Your task to perform on an android device: open device folders in google photos Image 0: 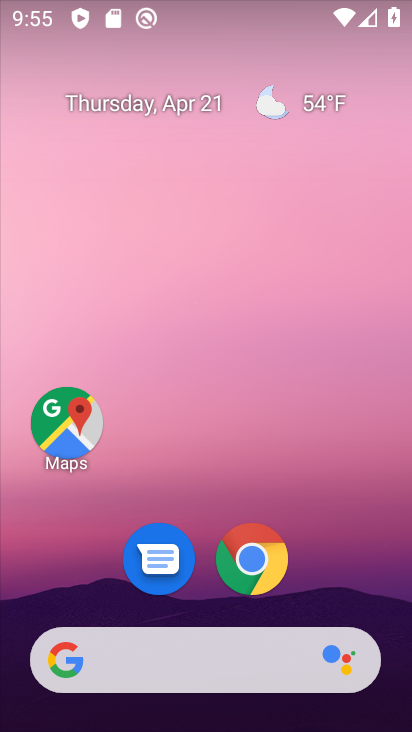
Step 0: drag from (188, 582) to (324, 12)
Your task to perform on an android device: open device folders in google photos Image 1: 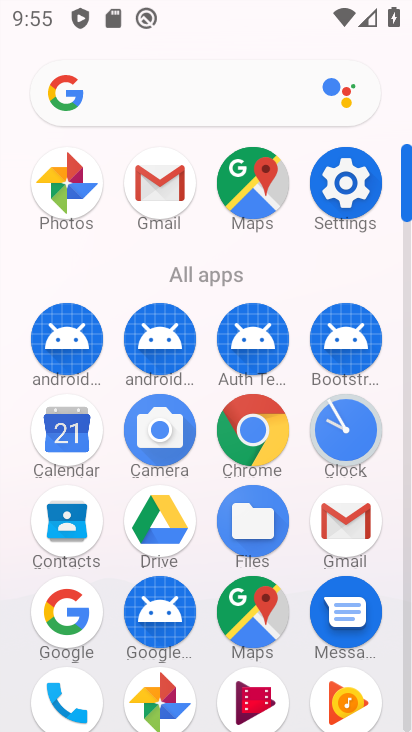
Step 1: drag from (192, 559) to (314, 94)
Your task to perform on an android device: open device folders in google photos Image 2: 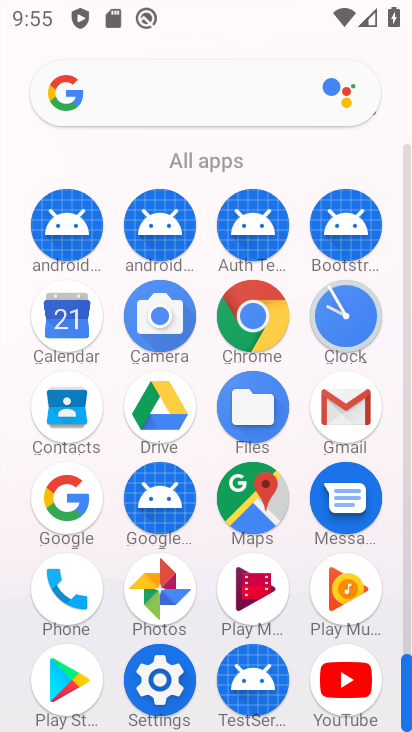
Step 2: click (159, 569)
Your task to perform on an android device: open device folders in google photos Image 3: 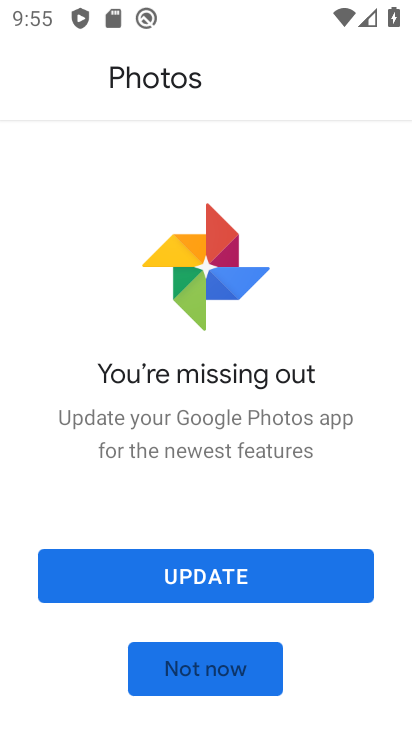
Step 3: click (195, 660)
Your task to perform on an android device: open device folders in google photos Image 4: 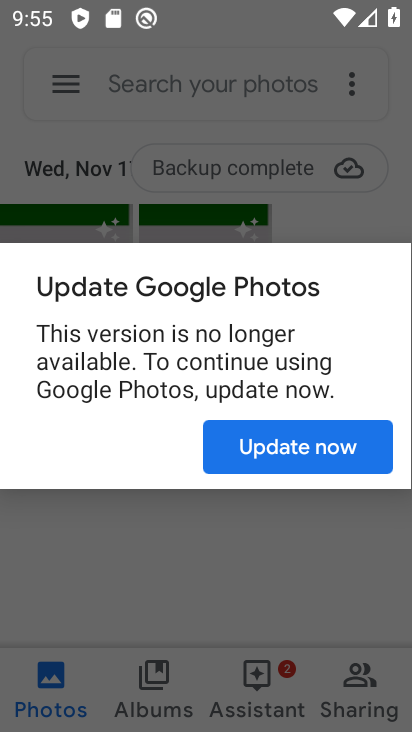
Step 4: click (198, 546)
Your task to perform on an android device: open device folders in google photos Image 5: 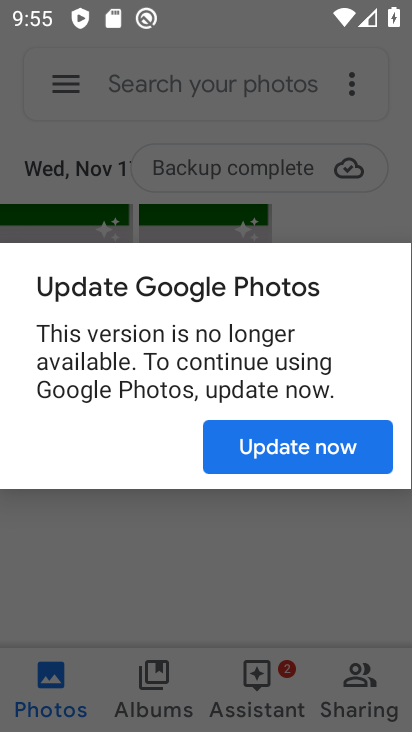
Step 5: click (128, 592)
Your task to perform on an android device: open device folders in google photos Image 6: 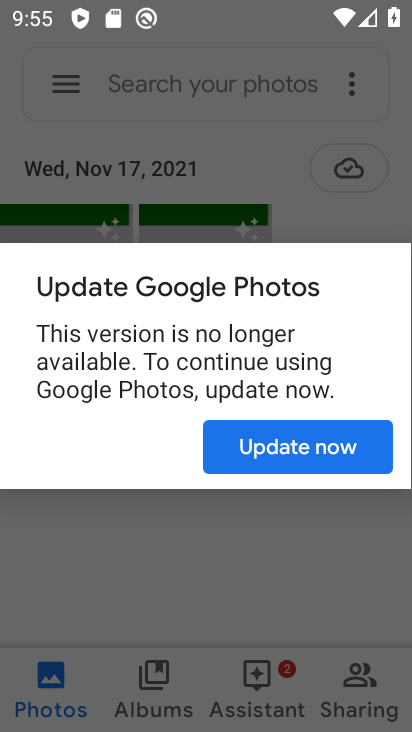
Step 6: click (307, 452)
Your task to perform on an android device: open device folders in google photos Image 7: 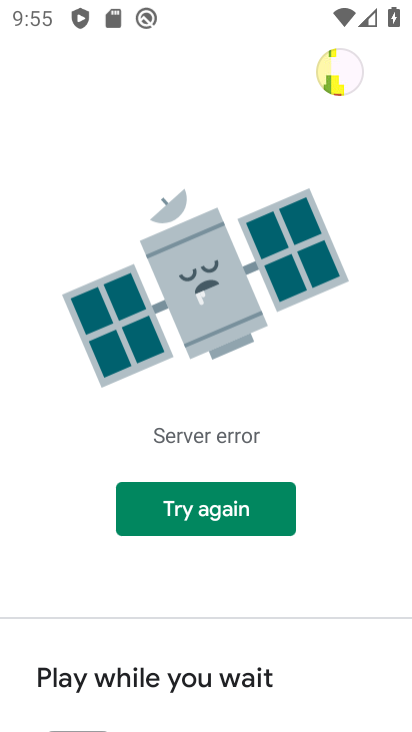
Step 7: click (213, 509)
Your task to perform on an android device: open device folders in google photos Image 8: 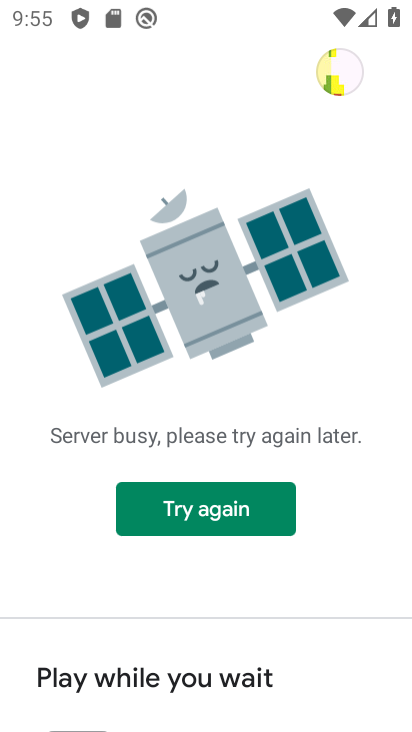
Step 8: press back button
Your task to perform on an android device: open device folders in google photos Image 9: 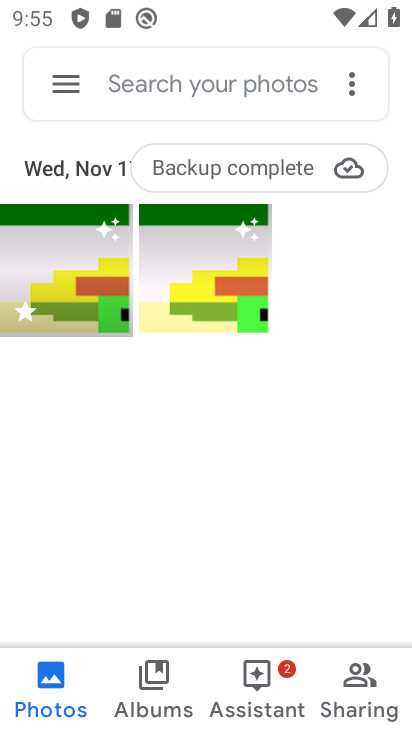
Step 9: click (72, 83)
Your task to perform on an android device: open device folders in google photos Image 10: 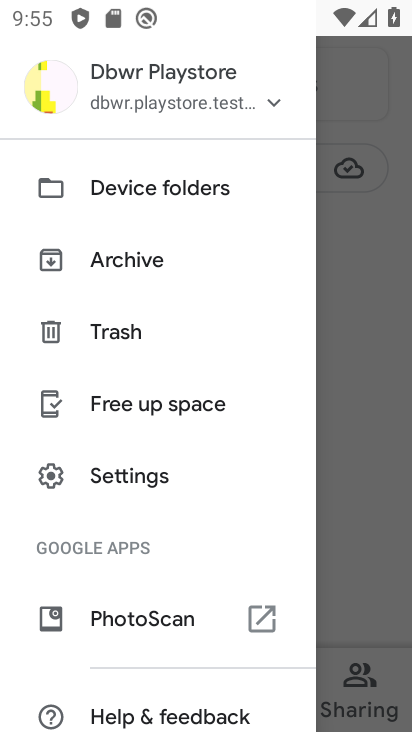
Step 10: click (194, 191)
Your task to perform on an android device: open device folders in google photos Image 11: 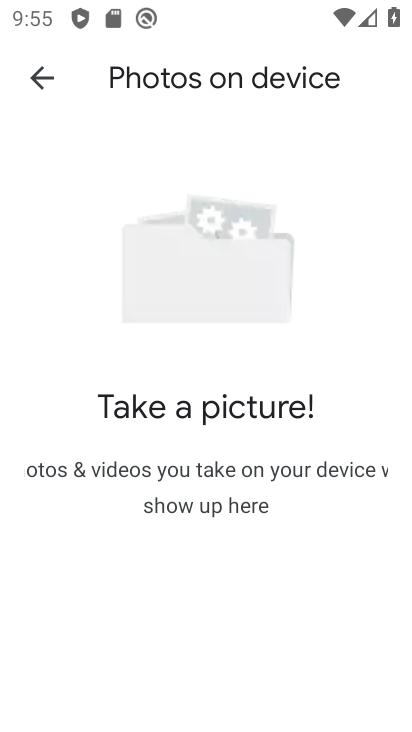
Step 11: task complete